Your task to perform on an android device: Open Yahoo.com Image 0: 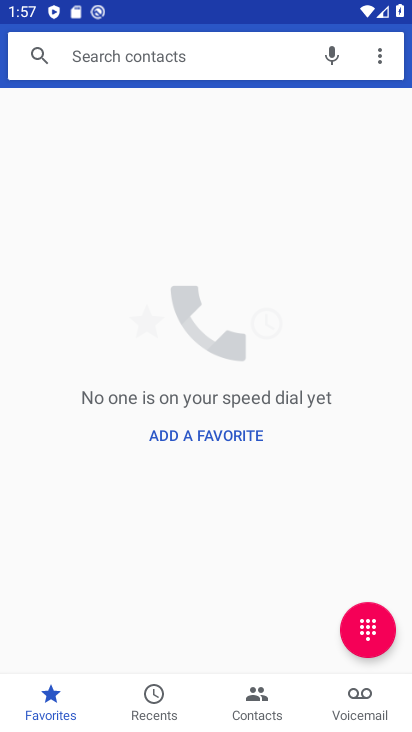
Step 0: press home button
Your task to perform on an android device: Open Yahoo.com Image 1: 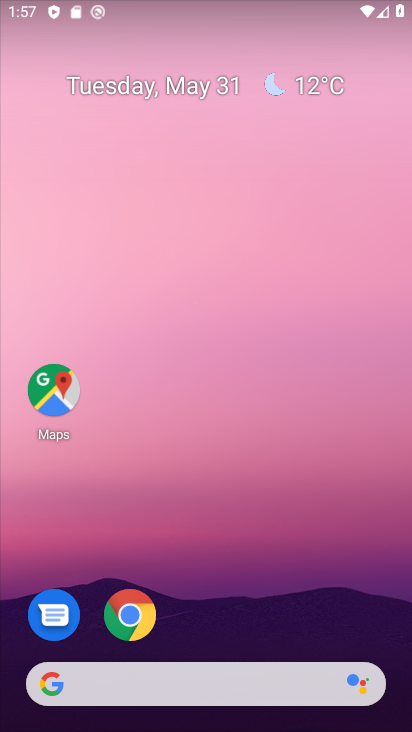
Step 1: click (132, 636)
Your task to perform on an android device: Open Yahoo.com Image 2: 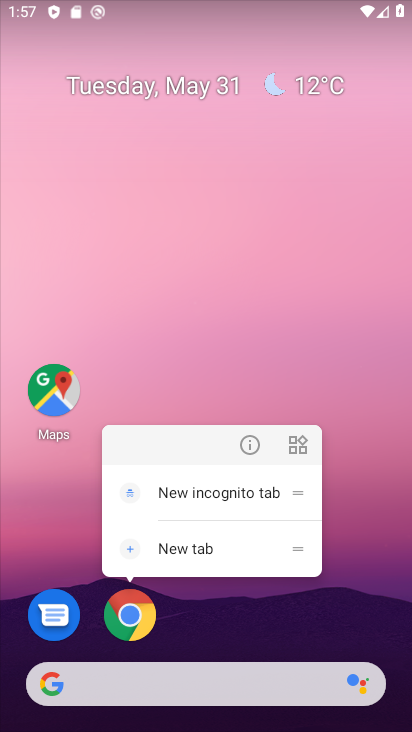
Step 2: click (125, 619)
Your task to perform on an android device: Open Yahoo.com Image 3: 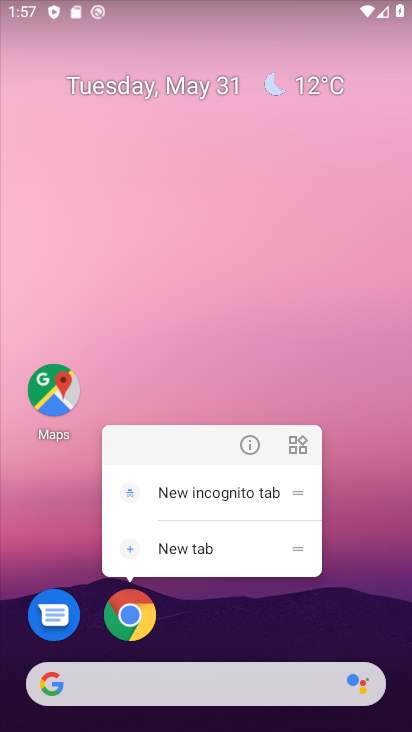
Step 3: click (134, 617)
Your task to perform on an android device: Open Yahoo.com Image 4: 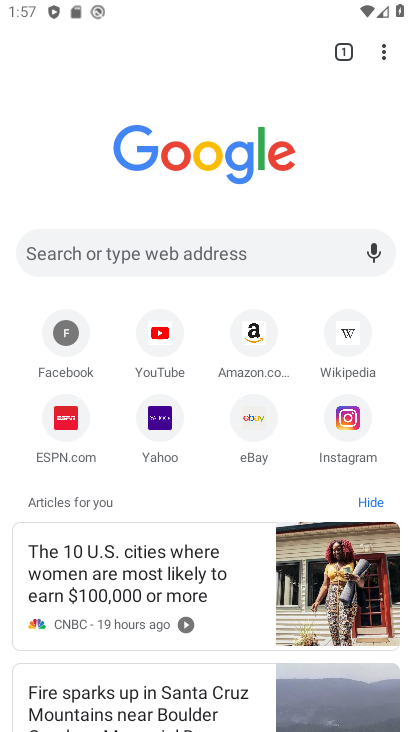
Step 4: click (150, 427)
Your task to perform on an android device: Open Yahoo.com Image 5: 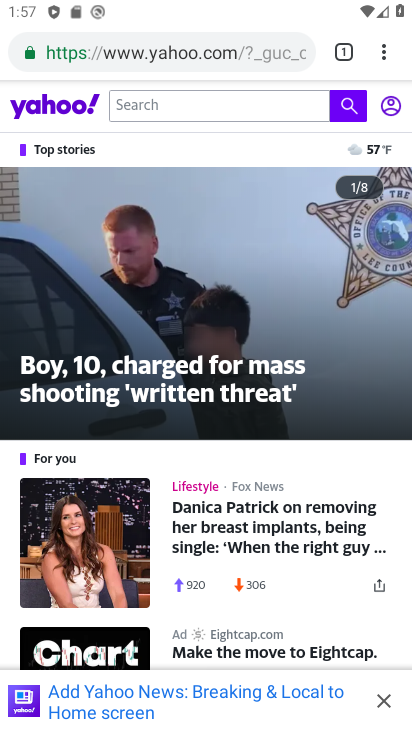
Step 5: task complete